Your task to perform on an android device: turn off location history Image 0: 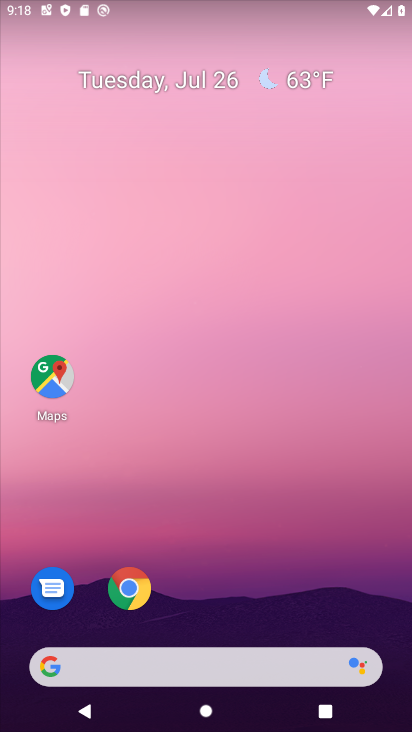
Step 0: drag from (205, 609) to (160, 87)
Your task to perform on an android device: turn off location history Image 1: 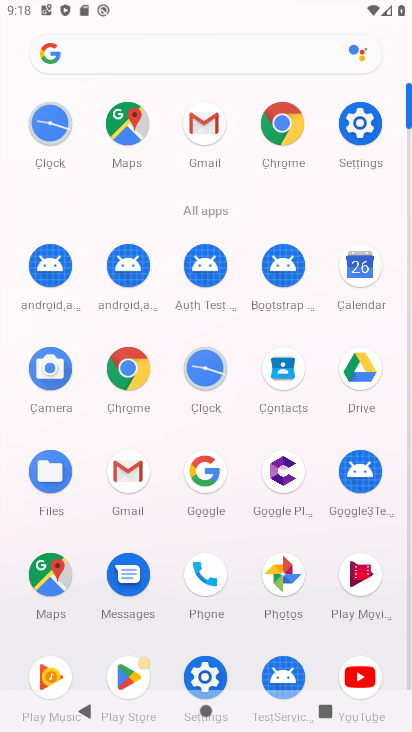
Step 1: click (365, 114)
Your task to perform on an android device: turn off location history Image 2: 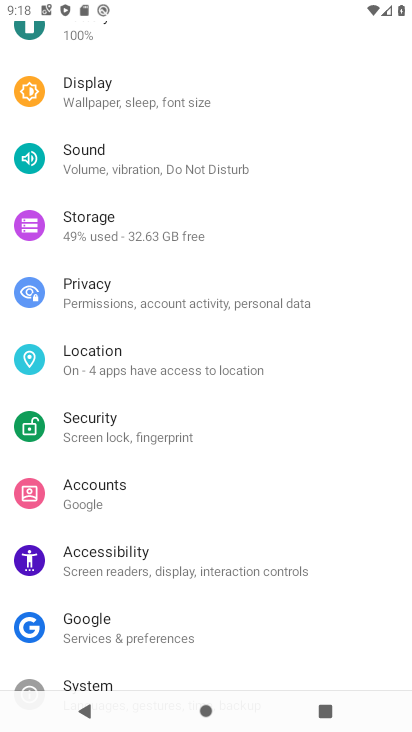
Step 2: click (217, 354)
Your task to perform on an android device: turn off location history Image 3: 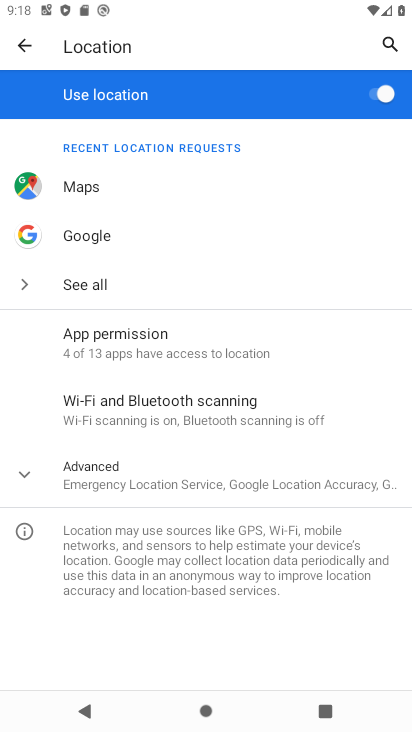
Step 3: click (159, 489)
Your task to perform on an android device: turn off location history Image 4: 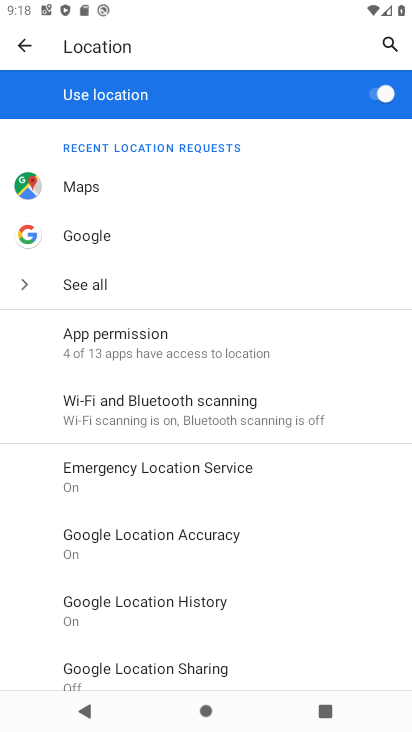
Step 4: click (141, 607)
Your task to perform on an android device: turn off location history Image 5: 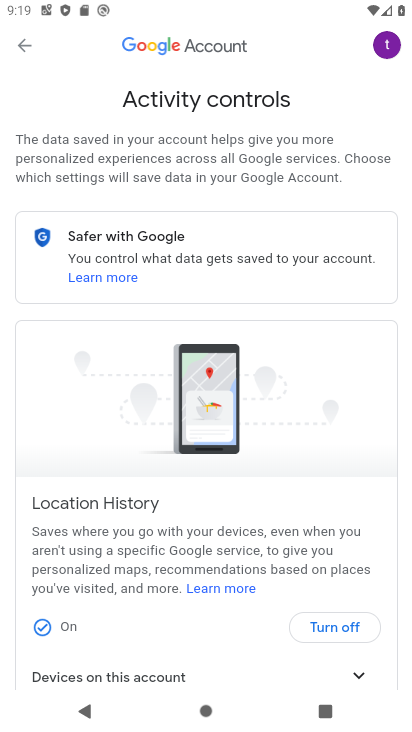
Step 5: click (333, 637)
Your task to perform on an android device: turn off location history Image 6: 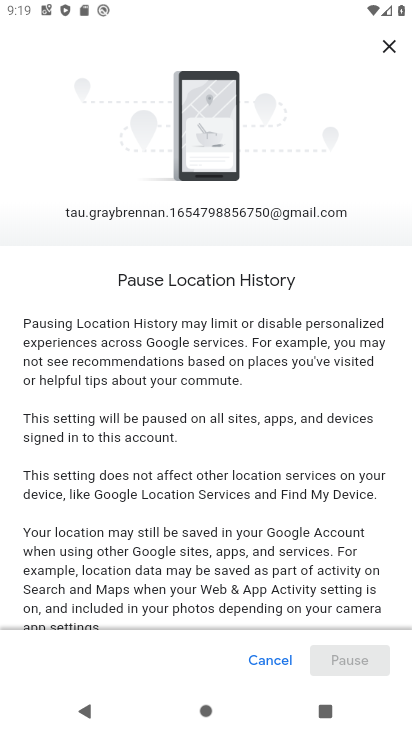
Step 6: drag from (316, 580) to (272, 6)
Your task to perform on an android device: turn off location history Image 7: 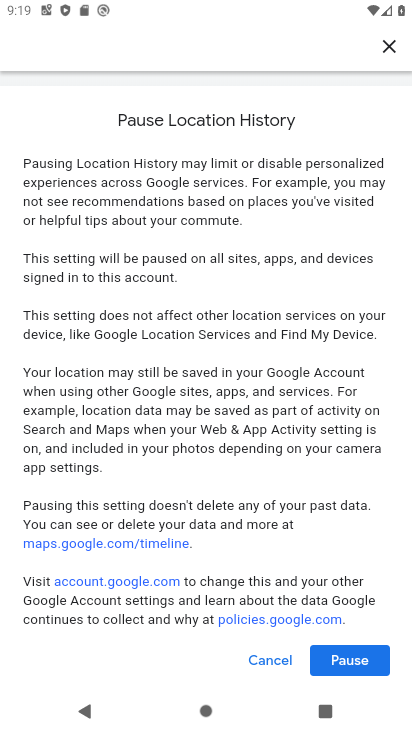
Step 7: drag from (257, 593) to (273, 236)
Your task to perform on an android device: turn off location history Image 8: 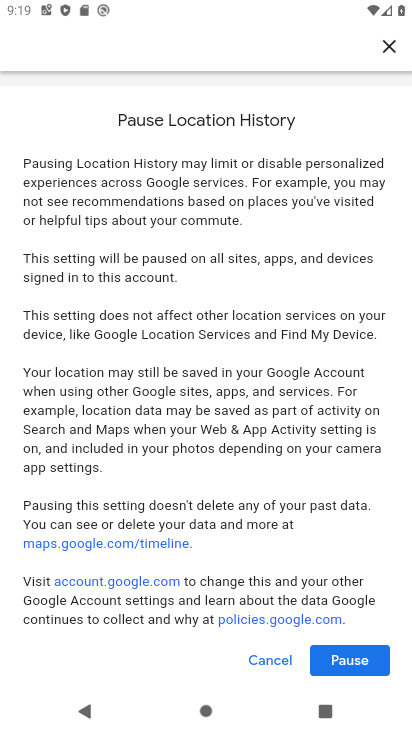
Step 8: click (351, 659)
Your task to perform on an android device: turn off location history Image 9: 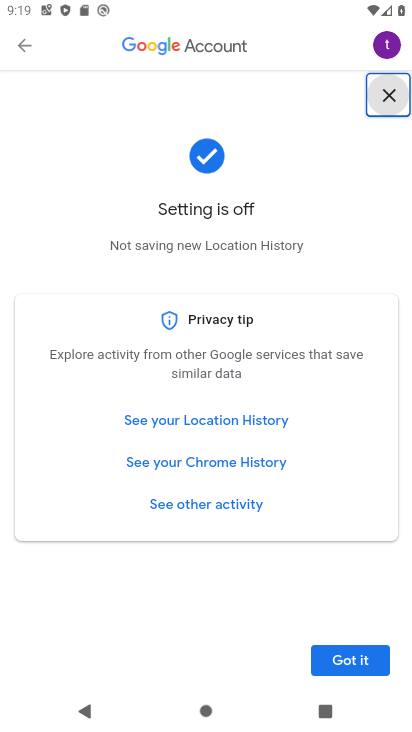
Step 9: click (351, 659)
Your task to perform on an android device: turn off location history Image 10: 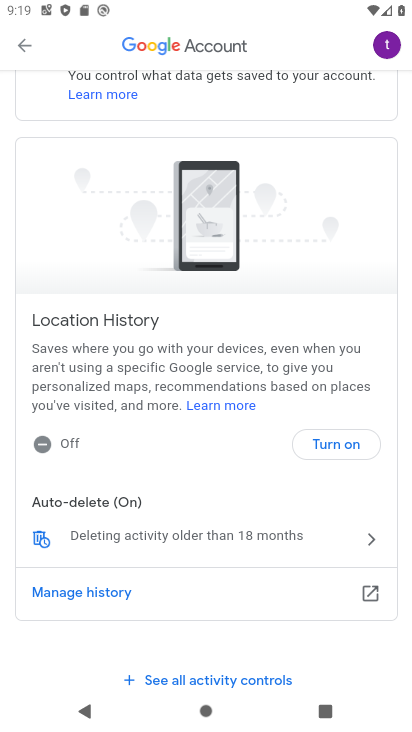
Step 10: task complete